Your task to perform on an android device: Open sound settings Image 0: 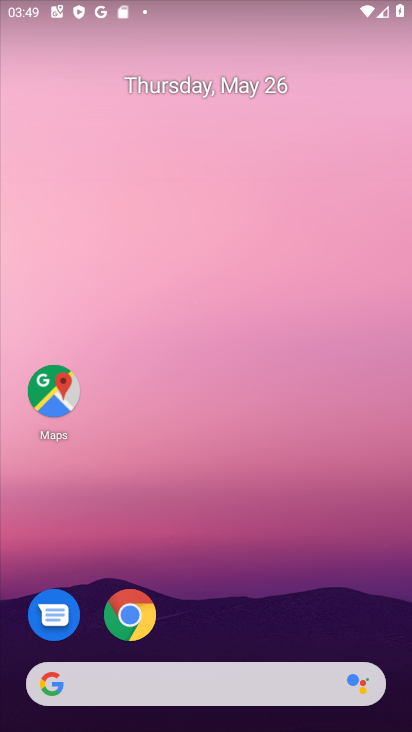
Step 0: drag from (225, 426) to (235, 97)
Your task to perform on an android device: Open sound settings Image 1: 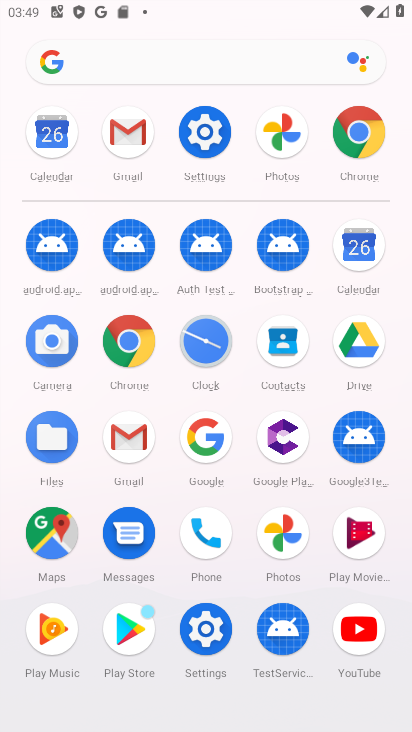
Step 1: click (197, 138)
Your task to perform on an android device: Open sound settings Image 2: 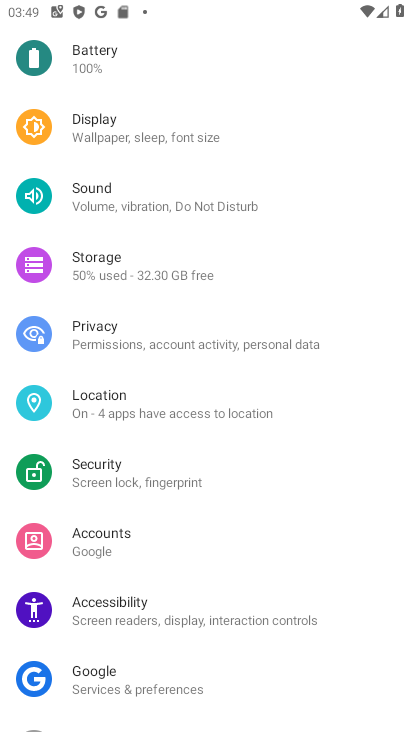
Step 2: click (105, 220)
Your task to perform on an android device: Open sound settings Image 3: 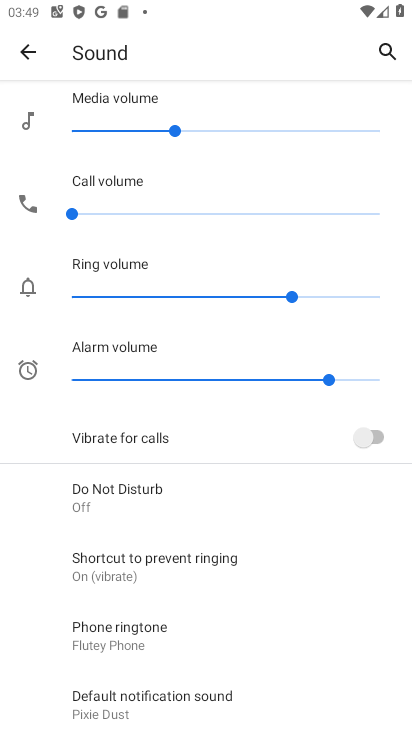
Step 3: task complete